Your task to perform on an android device: Set the phone to "Do not disturb". Image 0: 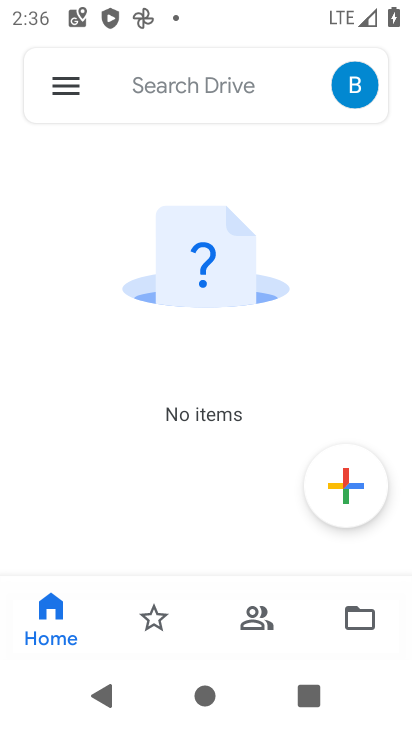
Step 0: press home button
Your task to perform on an android device: Set the phone to "Do not disturb". Image 1: 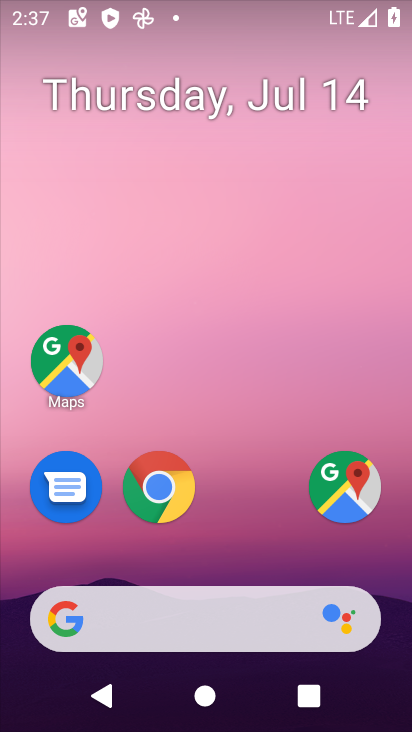
Step 1: drag from (271, 567) to (277, 251)
Your task to perform on an android device: Set the phone to "Do not disturb". Image 2: 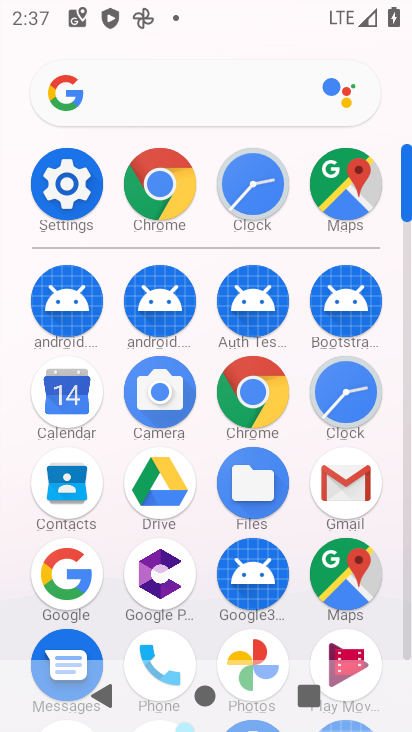
Step 2: click (80, 196)
Your task to perform on an android device: Set the phone to "Do not disturb". Image 3: 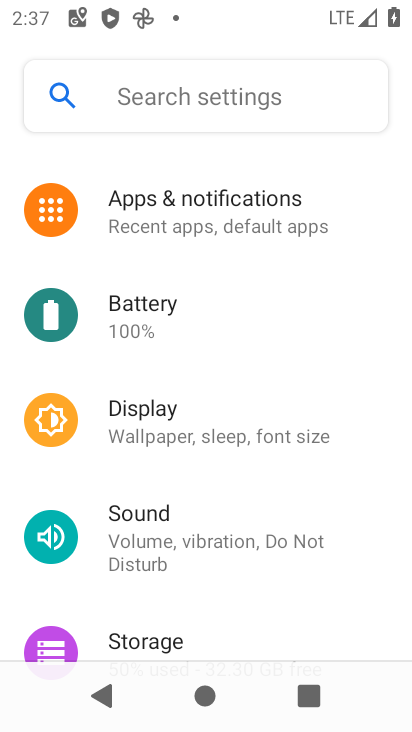
Step 3: drag from (374, 295) to (367, 419)
Your task to perform on an android device: Set the phone to "Do not disturb". Image 4: 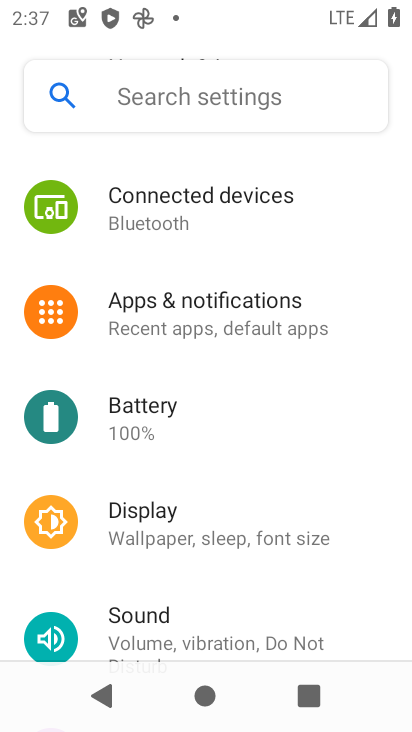
Step 4: drag from (354, 281) to (369, 397)
Your task to perform on an android device: Set the phone to "Do not disturb". Image 5: 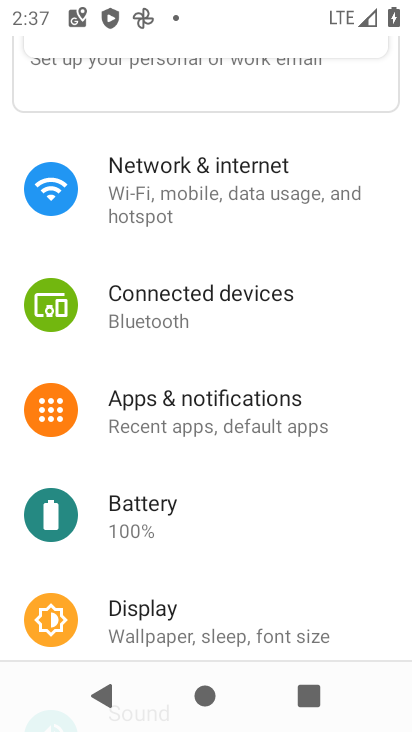
Step 5: drag from (357, 499) to (353, 326)
Your task to perform on an android device: Set the phone to "Do not disturb". Image 6: 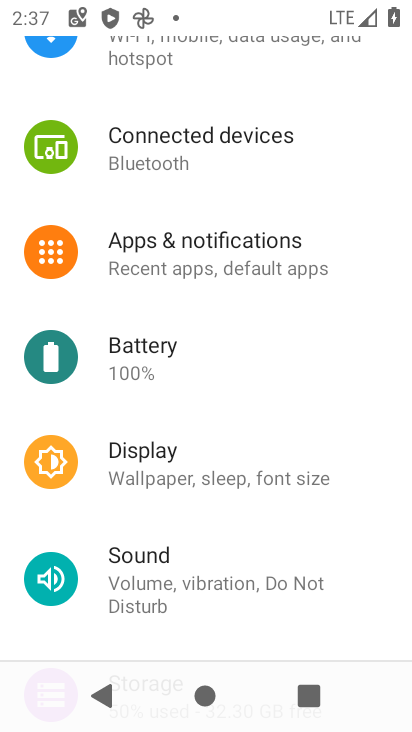
Step 6: drag from (356, 519) to (354, 316)
Your task to perform on an android device: Set the phone to "Do not disturb". Image 7: 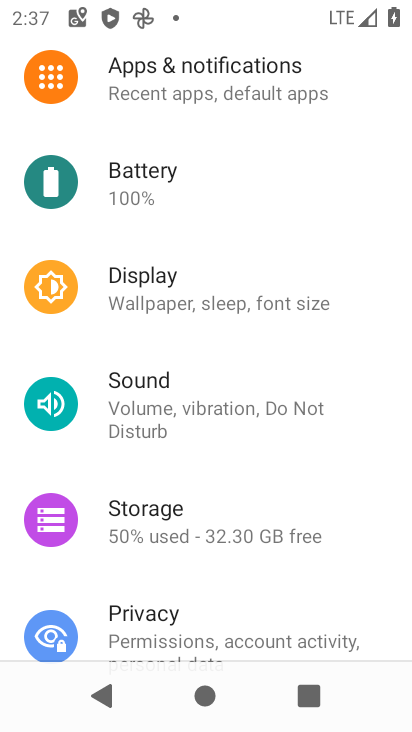
Step 7: drag from (353, 580) to (355, 423)
Your task to perform on an android device: Set the phone to "Do not disturb". Image 8: 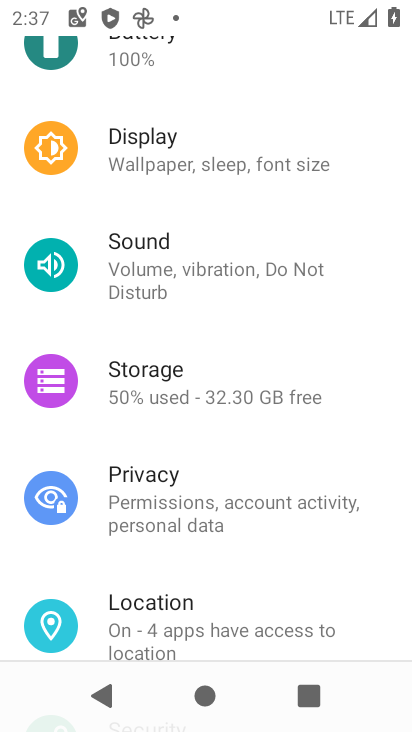
Step 8: drag from (359, 589) to (368, 414)
Your task to perform on an android device: Set the phone to "Do not disturb". Image 9: 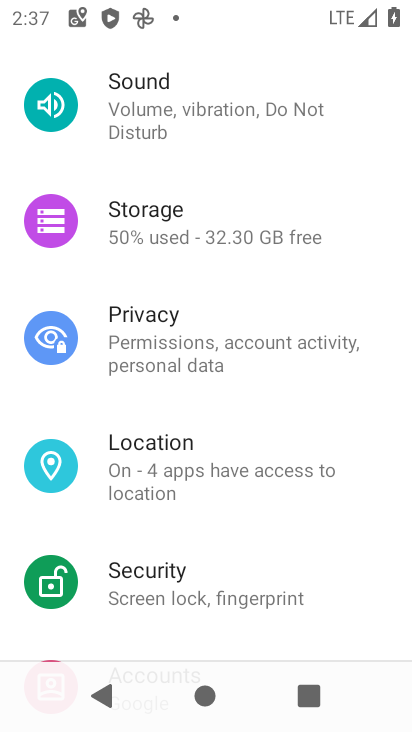
Step 9: drag from (380, 551) to (363, 332)
Your task to perform on an android device: Set the phone to "Do not disturb". Image 10: 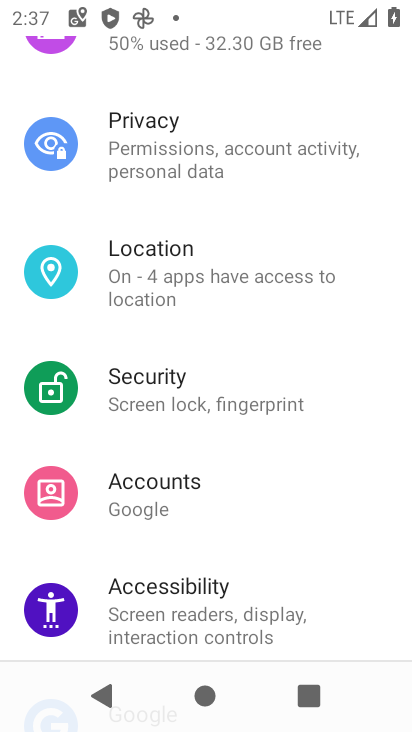
Step 10: drag from (340, 533) to (339, 364)
Your task to perform on an android device: Set the phone to "Do not disturb". Image 11: 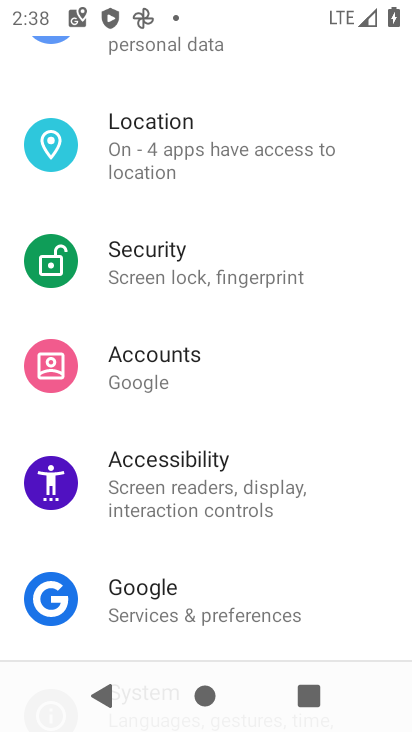
Step 11: drag from (354, 548) to (336, 358)
Your task to perform on an android device: Set the phone to "Do not disturb". Image 12: 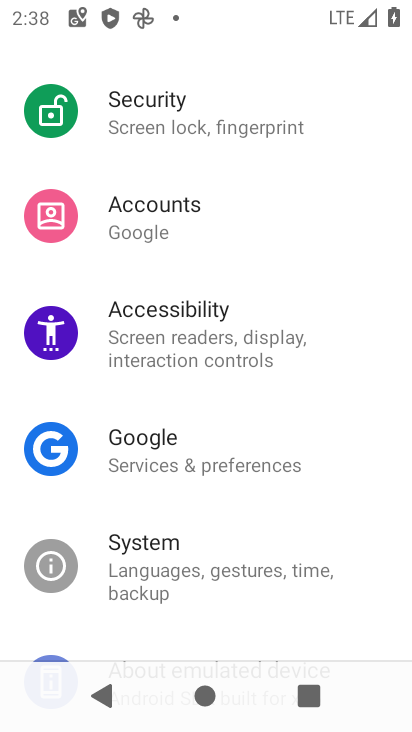
Step 12: drag from (347, 291) to (346, 345)
Your task to perform on an android device: Set the phone to "Do not disturb". Image 13: 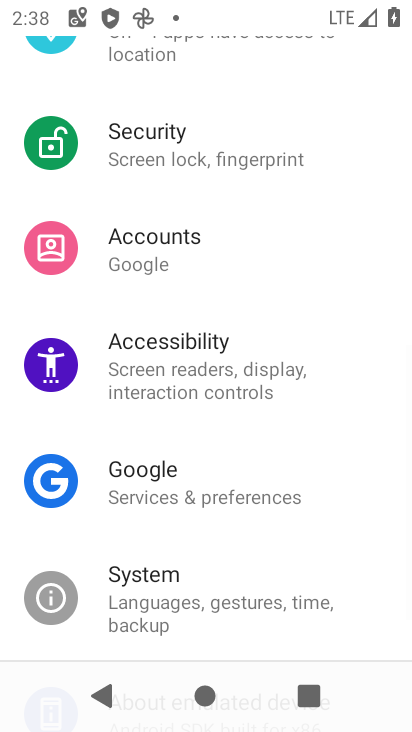
Step 13: drag from (338, 250) to (342, 397)
Your task to perform on an android device: Set the phone to "Do not disturb". Image 14: 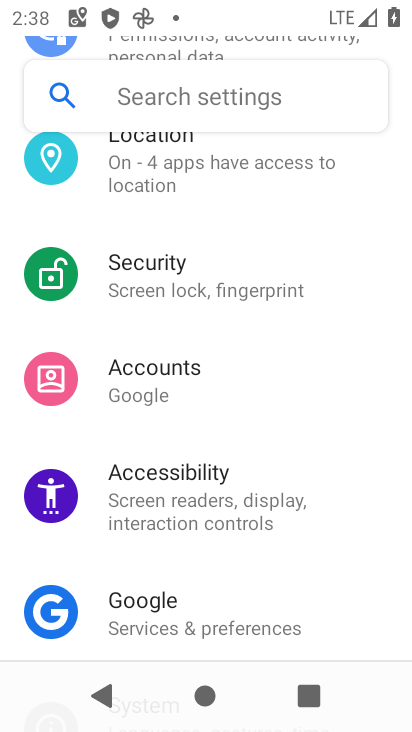
Step 14: drag from (343, 251) to (352, 404)
Your task to perform on an android device: Set the phone to "Do not disturb". Image 15: 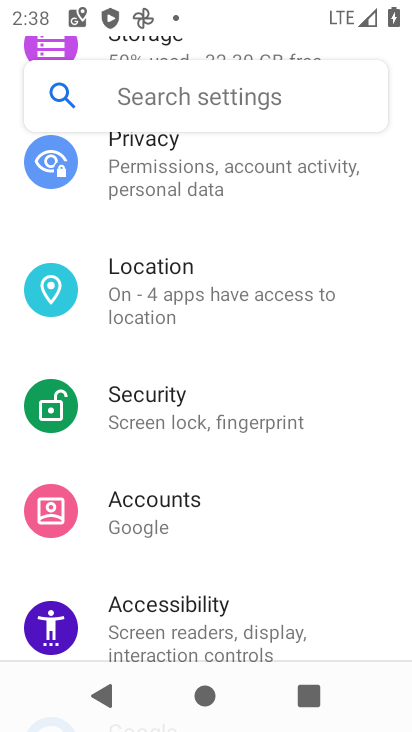
Step 15: drag from (336, 233) to (336, 483)
Your task to perform on an android device: Set the phone to "Do not disturb". Image 16: 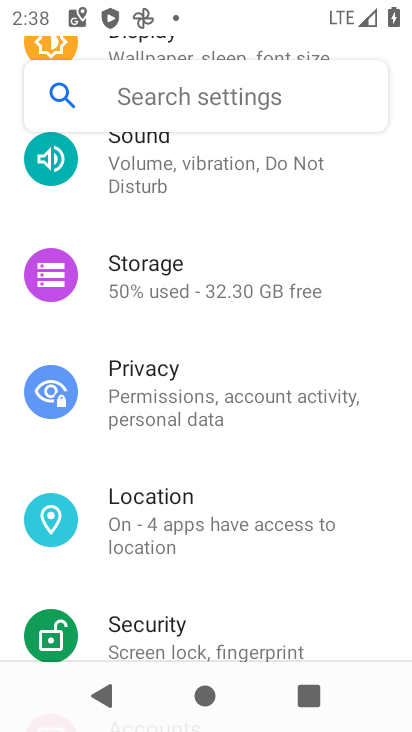
Step 16: drag from (323, 240) to (349, 429)
Your task to perform on an android device: Set the phone to "Do not disturb". Image 17: 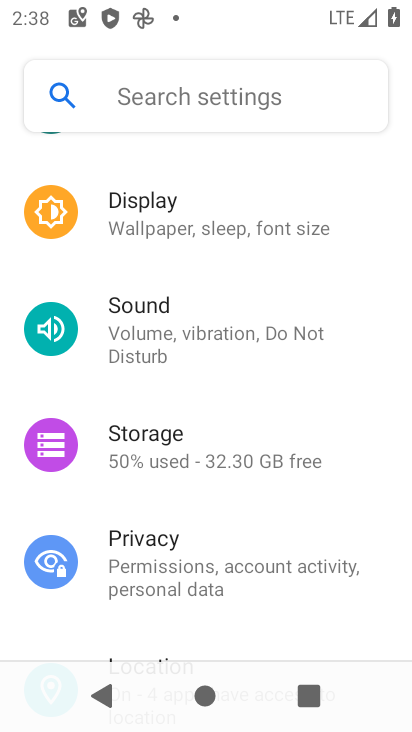
Step 17: click (192, 334)
Your task to perform on an android device: Set the phone to "Do not disturb". Image 18: 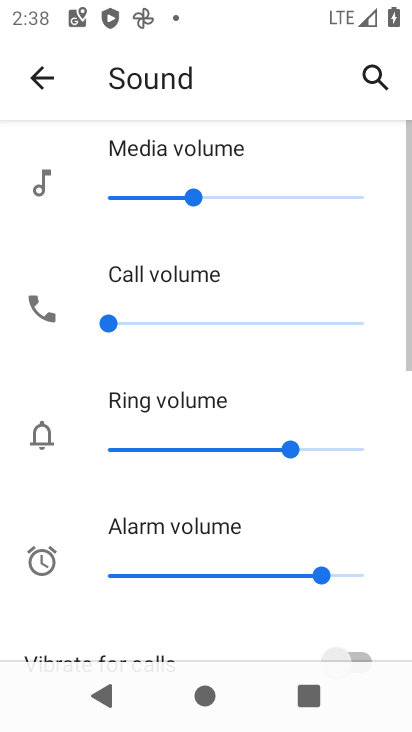
Step 18: drag from (230, 532) to (231, 369)
Your task to perform on an android device: Set the phone to "Do not disturb". Image 19: 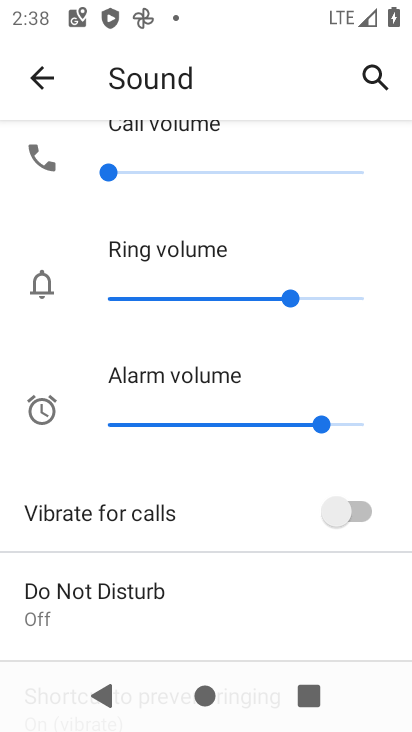
Step 19: click (217, 607)
Your task to perform on an android device: Set the phone to "Do not disturb". Image 20: 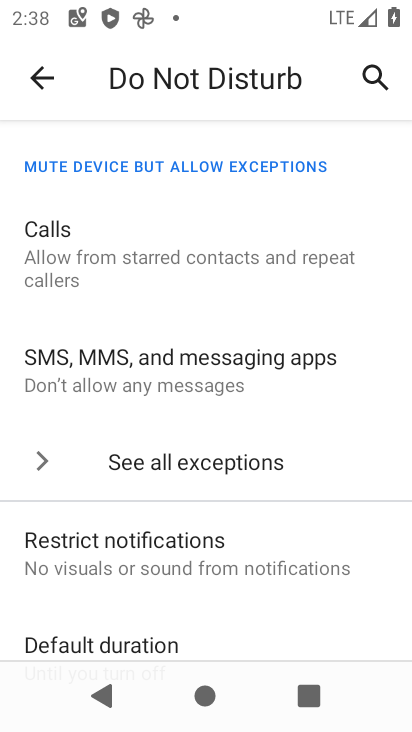
Step 20: drag from (251, 580) to (230, 364)
Your task to perform on an android device: Set the phone to "Do not disturb". Image 21: 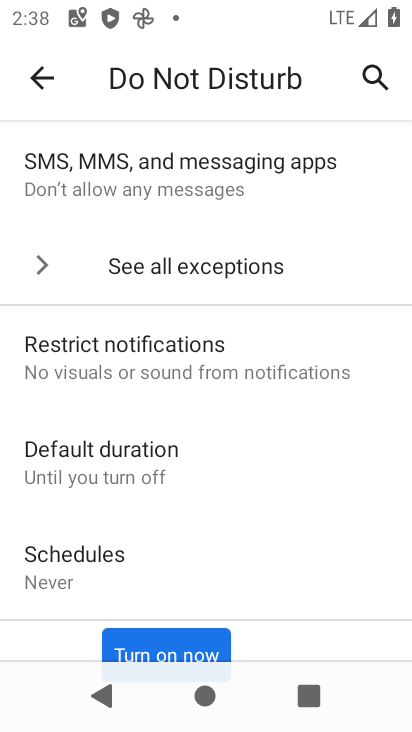
Step 21: drag from (240, 571) to (222, 405)
Your task to perform on an android device: Set the phone to "Do not disturb". Image 22: 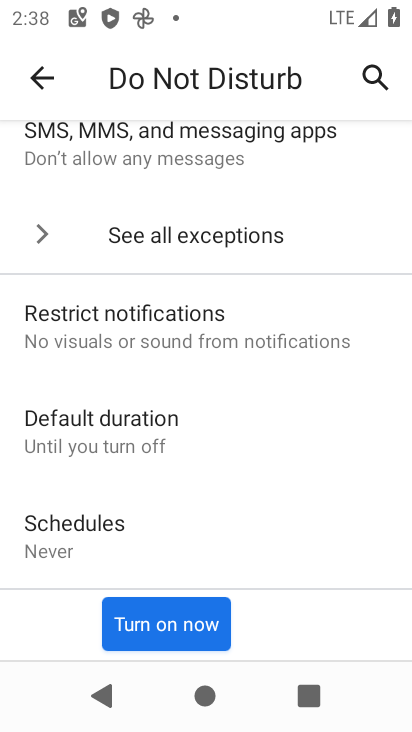
Step 22: click (215, 614)
Your task to perform on an android device: Set the phone to "Do not disturb". Image 23: 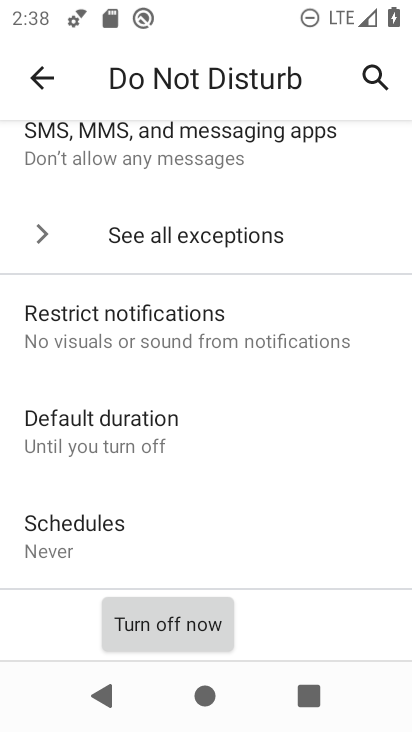
Step 23: task complete